Your task to perform on an android device: toggle notifications settings in the gmail app Image 0: 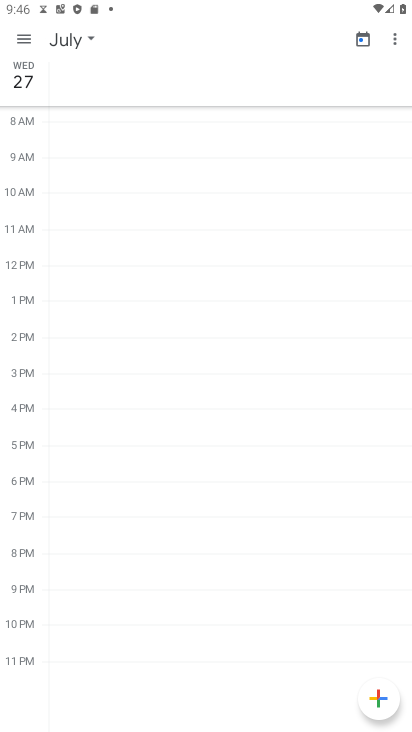
Step 0: press home button
Your task to perform on an android device: toggle notifications settings in the gmail app Image 1: 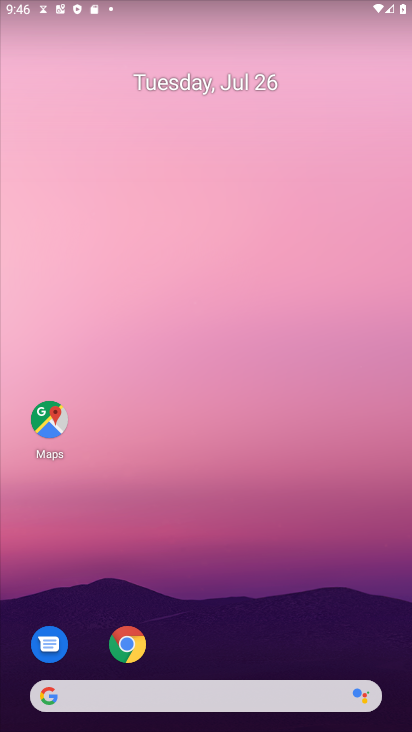
Step 1: drag from (213, 644) to (206, 5)
Your task to perform on an android device: toggle notifications settings in the gmail app Image 2: 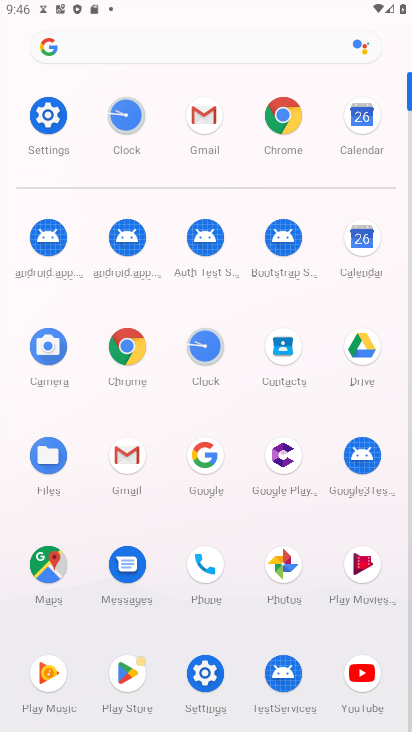
Step 2: click (126, 483)
Your task to perform on an android device: toggle notifications settings in the gmail app Image 3: 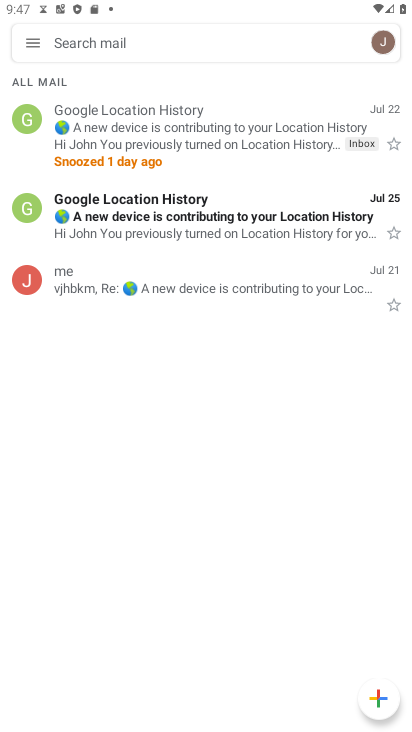
Step 3: click (31, 44)
Your task to perform on an android device: toggle notifications settings in the gmail app Image 4: 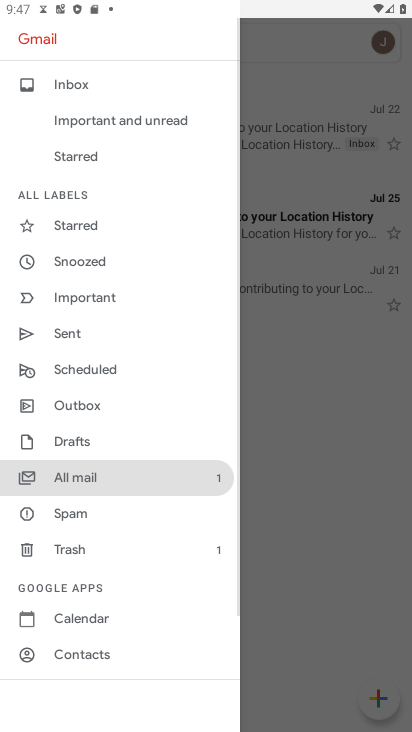
Step 4: drag from (98, 610) to (139, 156)
Your task to perform on an android device: toggle notifications settings in the gmail app Image 5: 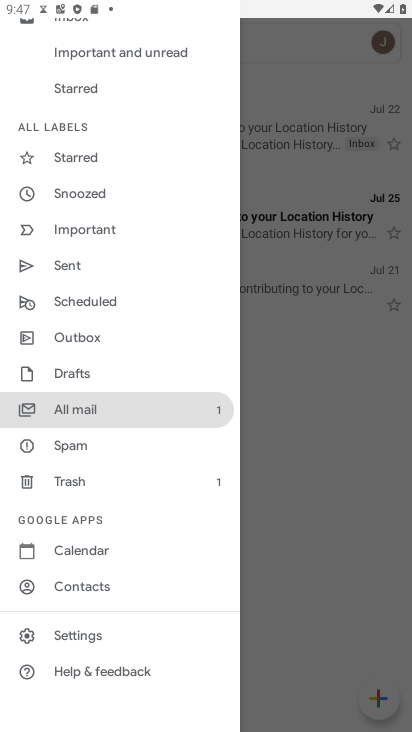
Step 5: click (80, 631)
Your task to perform on an android device: toggle notifications settings in the gmail app Image 6: 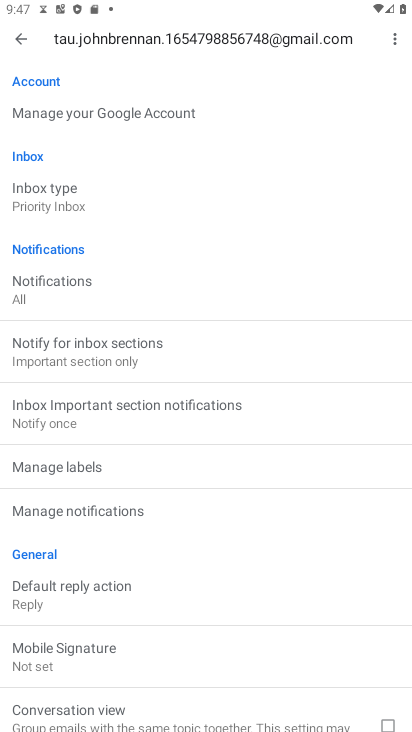
Step 6: click (19, 32)
Your task to perform on an android device: toggle notifications settings in the gmail app Image 7: 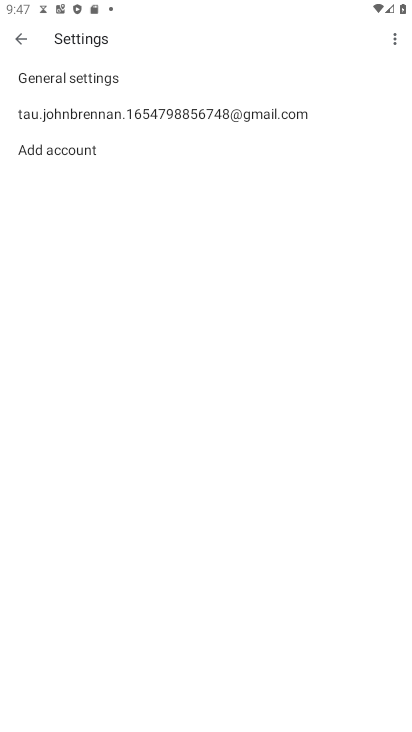
Step 7: click (95, 78)
Your task to perform on an android device: toggle notifications settings in the gmail app Image 8: 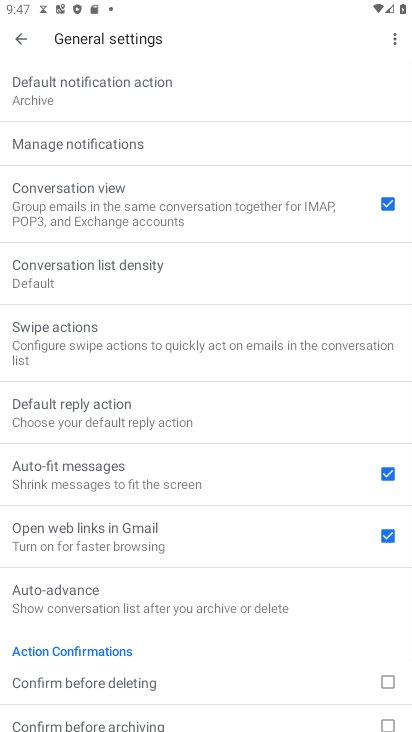
Step 8: click (116, 145)
Your task to perform on an android device: toggle notifications settings in the gmail app Image 9: 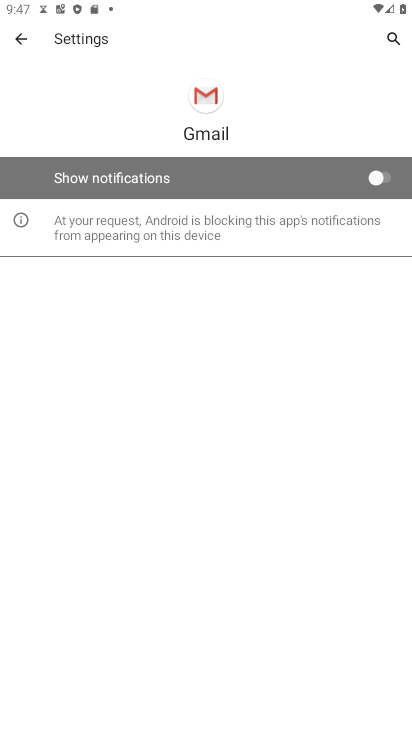
Step 9: click (353, 178)
Your task to perform on an android device: toggle notifications settings in the gmail app Image 10: 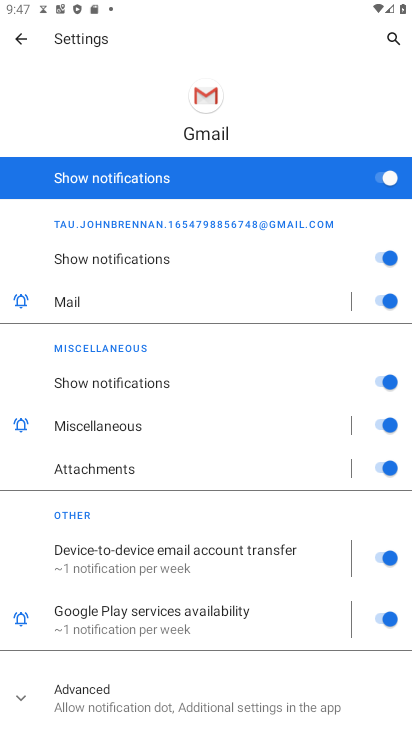
Step 10: task complete